Your task to perform on an android device: Do I have any events tomorrow? Image 0: 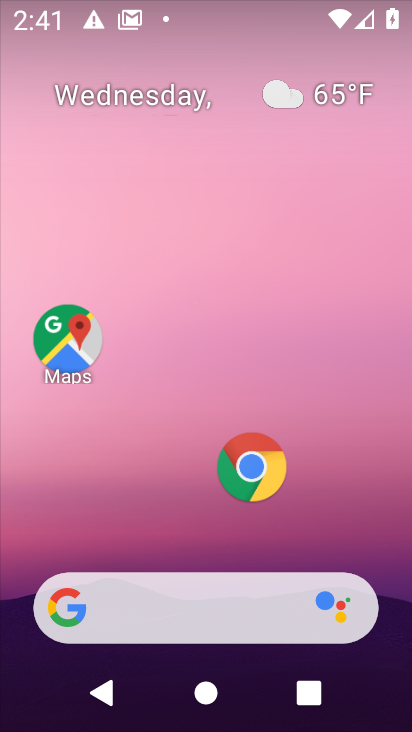
Step 0: drag from (167, 483) to (193, 186)
Your task to perform on an android device: Do I have any events tomorrow? Image 1: 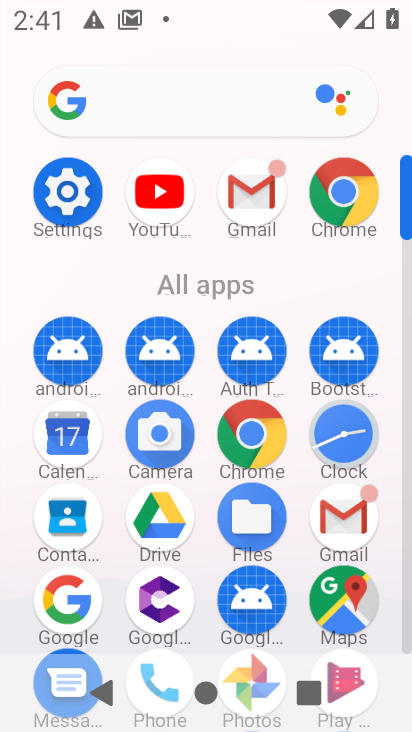
Step 1: click (92, 438)
Your task to perform on an android device: Do I have any events tomorrow? Image 2: 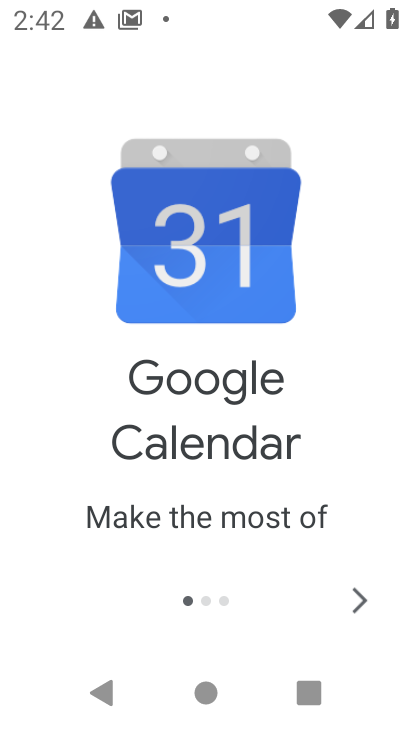
Step 2: click (360, 590)
Your task to perform on an android device: Do I have any events tomorrow? Image 3: 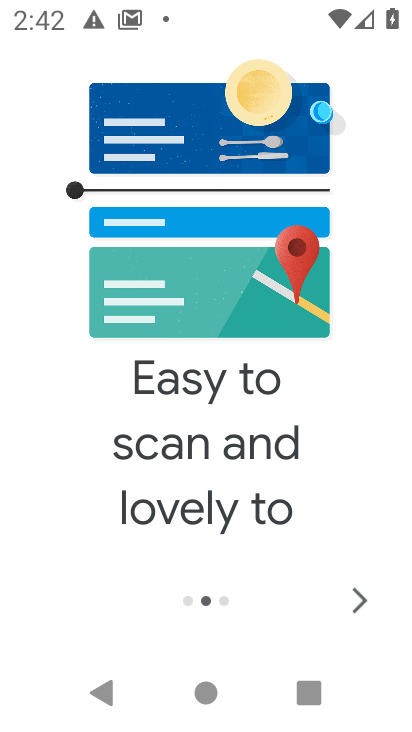
Step 3: click (360, 590)
Your task to perform on an android device: Do I have any events tomorrow? Image 4: 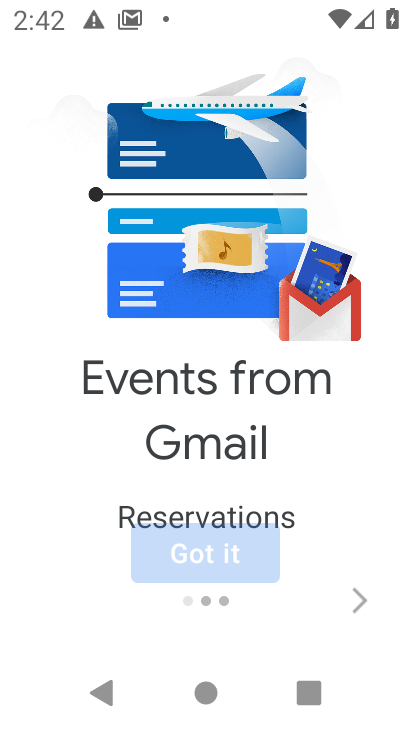
Step 4: click (360, 590)
Your task to perform on an android device: Do I have any events tomorrow? Image 5: 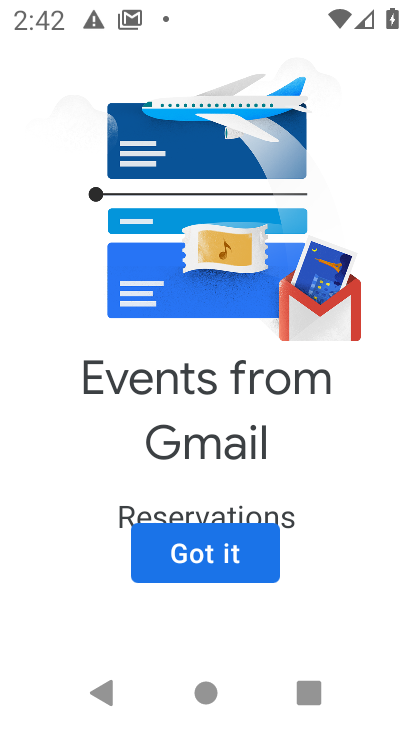
Step 5: click (360, 590)
Your task to perform on an android device: Do I have any events tomorrow? Image 6: 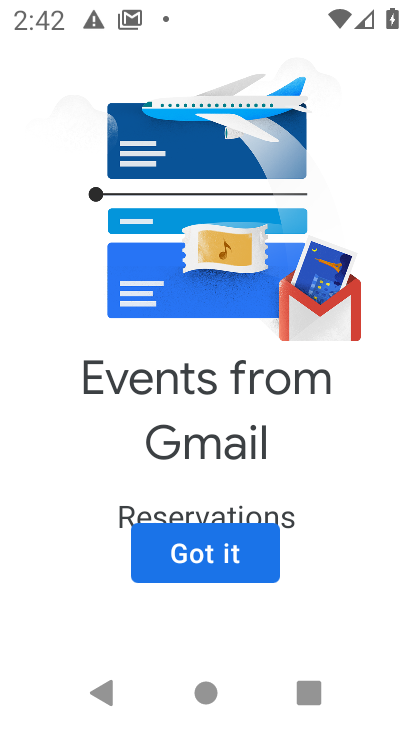
Step 6: click (202, 556)
Your task to perform on an android device: Do I have any events tomorrow? Image 7: 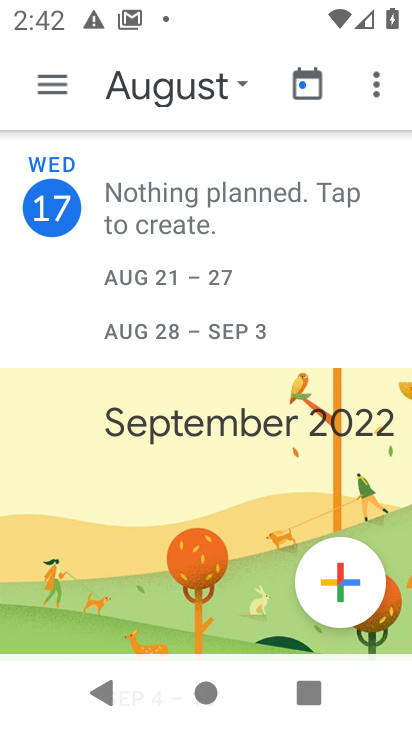
Step 7: task complete